Your task to perform on an android device: Search for "logitech g502" on target, select the first entry, add it to the cart, then select checkout. Image 0: 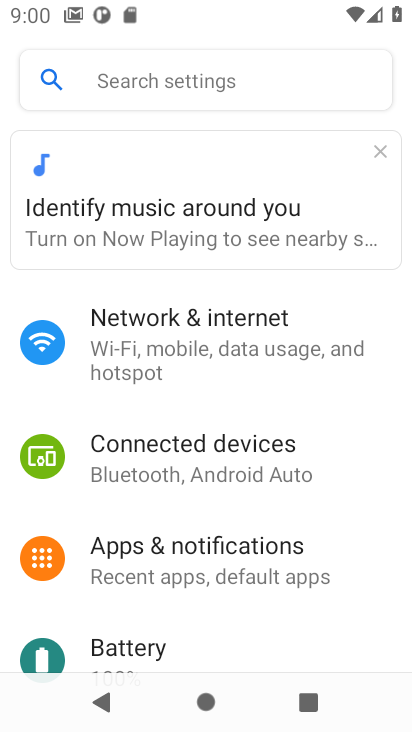
Step 0: press home button
Your task to perform on an android device: Search for "logitech g502" on target, select the first entry, add it to the cart, then select checkout. Image 1: 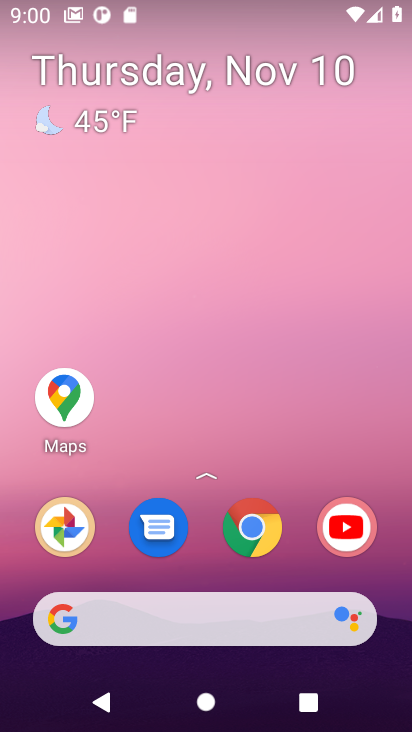
Step 1: drag from (132, 255) to (98, 50)
Your task to perform on an android device: Search for "logitech g502" on target, select the first entry, add it to the cart, then select checkout. Image 2: 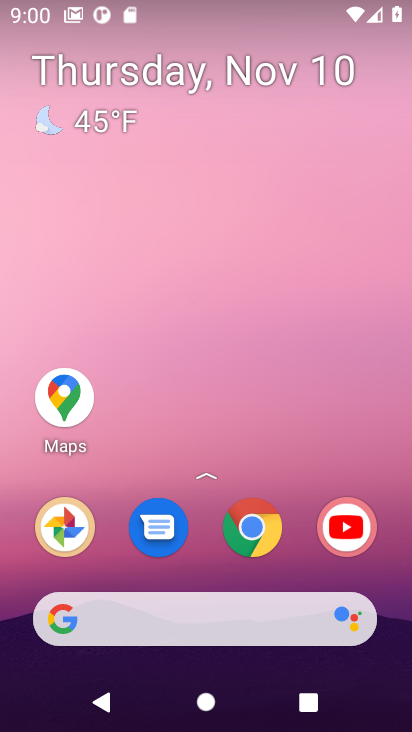
Step 2: drag from (270, 504) to (276, 33)
Your task to perform on an android device: Search for "logitech g502" on target, select the first entry, add it to the cart, then select checkout. Image 3: 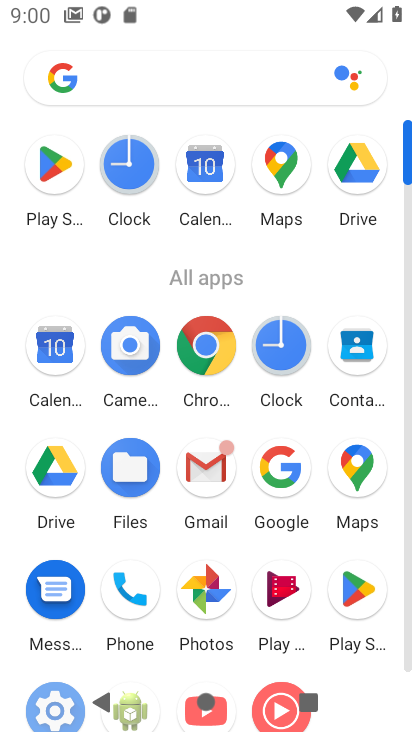
Step 3: click (177, 337)
Your task to perform on an android device: Search for "logitech g502" on target, select the first entry, add it to the cart, then select checkout. Image 4: 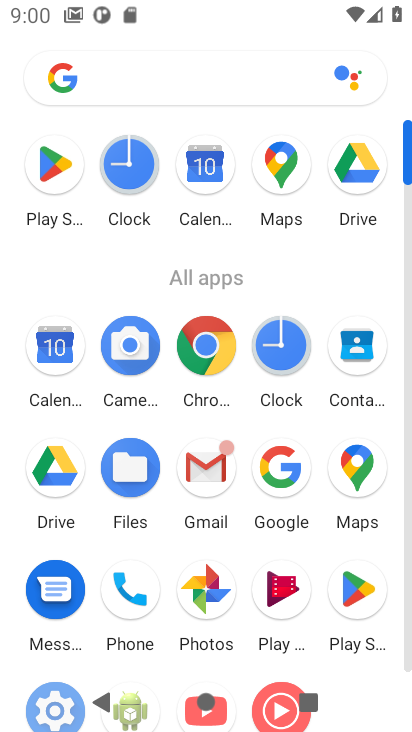
Step 4: click (204, 359)
Your task to perform on an android device: Search for "logitech g502" on target, select the first entry, add it to the cart, then select checkout. Image 5: 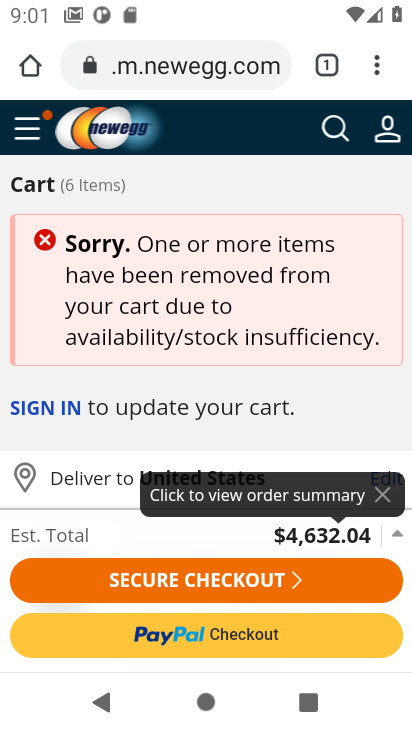
Step 5: click (164, 65)
Your task to perform on an android device: Search for "logitech g502" on target, select the first entry, add it to the cart, then select checkout. Image 6: 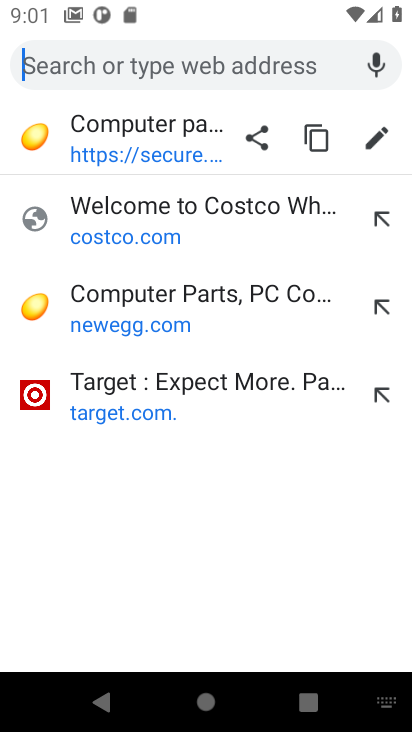
Step 6: type "target"
Your task to perform on an android device: Search for "logitech g502" on target, select the first entry, add it to the cart, then select checkout. Image 7: 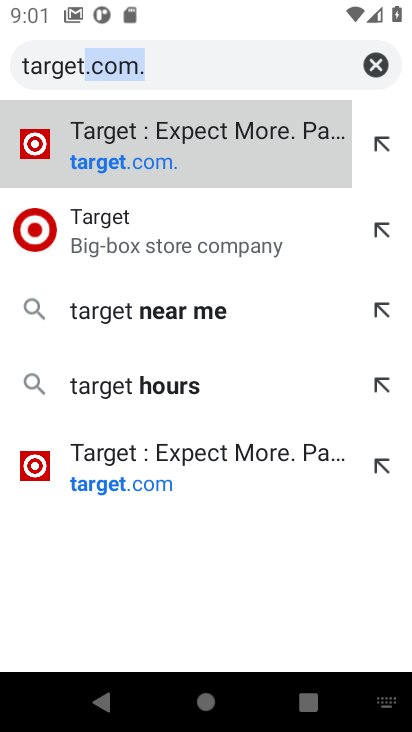
Step 7: press enter
Your task to perform on an android device: Search for "logitech g502" on target, select the first entry, add it to the cart, then select checkout. Image 8: 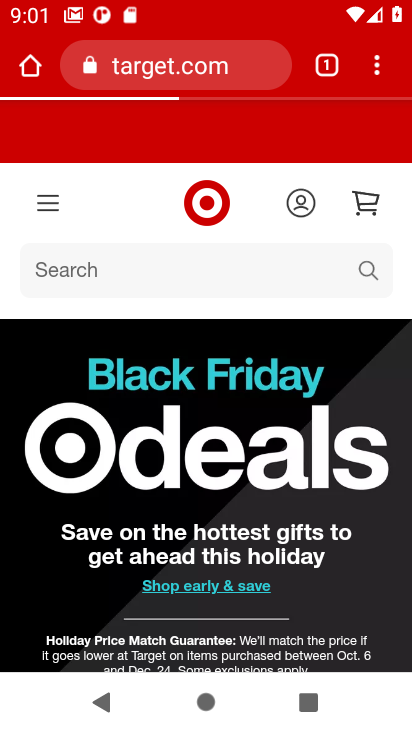
Step 8: click (99, 274)
Your task to perform on an android device: Search for "logitech g502" on target, select the first entry, add it to the cart, then select checkout. Image 9: 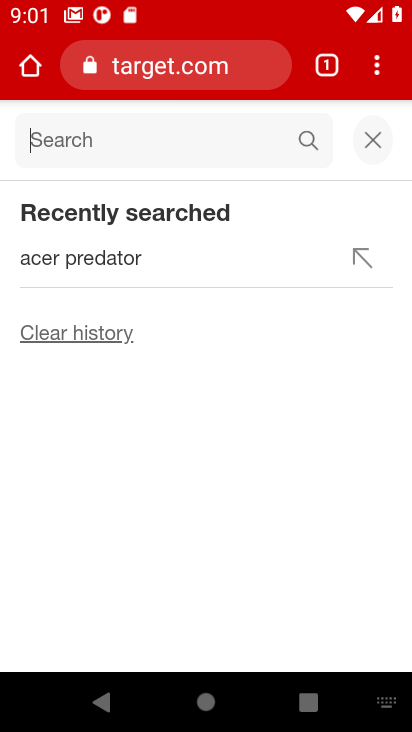
Step 9: type "logitech g502"
Your task to perform on an android device: Search for "logitech g502" on target, select the first entry, add it to the cart, then select checkout. Image 10: 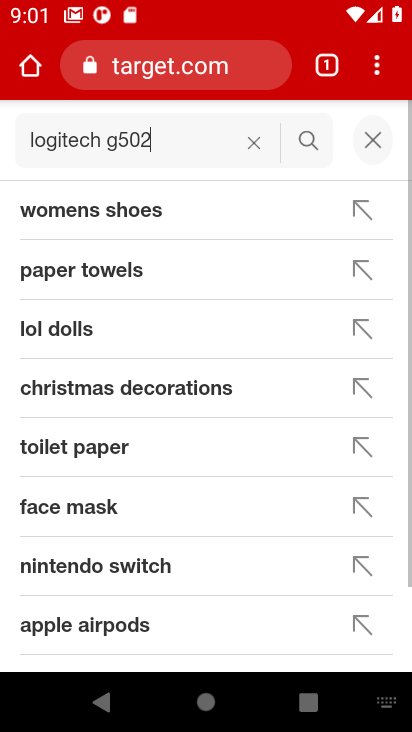
Step 10: press enter
Your task to perform on an android device: Search for "logitech g502" on target, select the first entry, add it to the cart, then select checkout. Image 11: 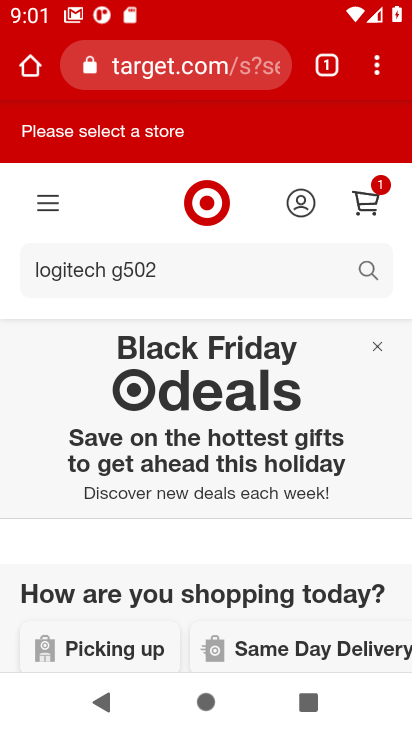
Step 11: drag from (245, 578) to (268, 322)
Your task to perform on an android device: Search for "logitech g502" on target, select the first entry, add it to the cart, then select checkout. Image 12: 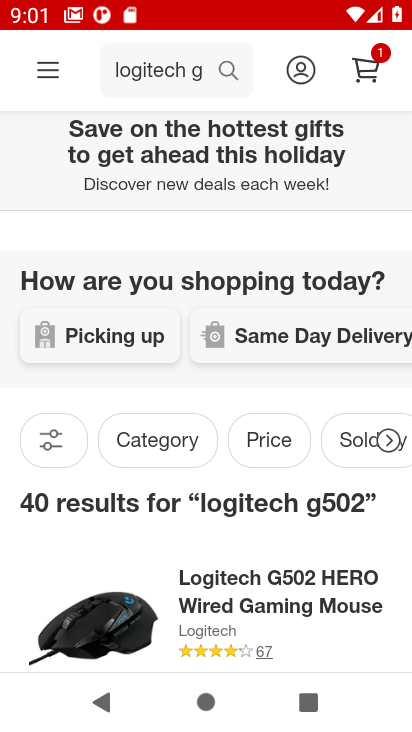
Step 12: drag from (232, 407) to (239, 201)
Your task to perform on an android device: Search for "logitech g502" on target, select the first entry, add it to the cart, then select checkout. Image 13: 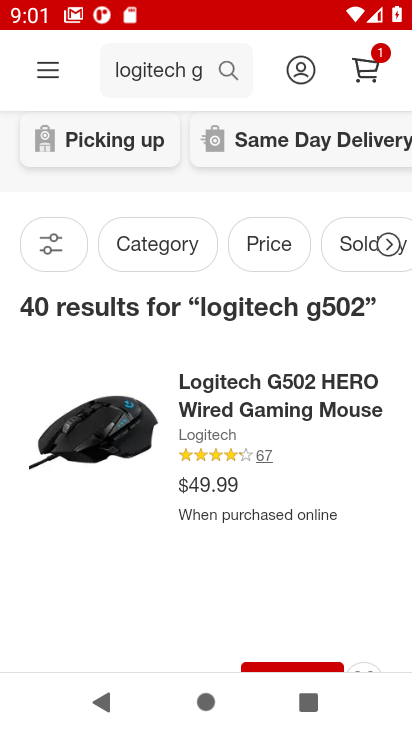
Step 13: click (222, 389)
Your task to perform on an android device: Search for "logitech g502" on target, select the first entry, add it to the cart, then select checkout. Image 14: 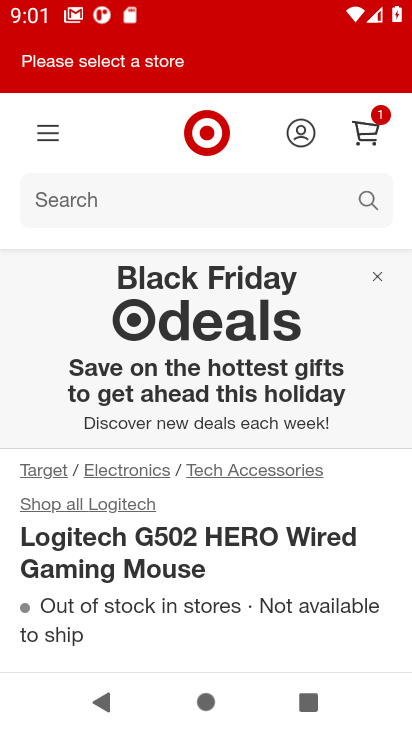
Step 14: drag from (217, 586) to (236, 284)
Your task to perform on an android device: Search for "logitech g502" on target, select the first entry, add it to the cart, then select checkout. Image 15: 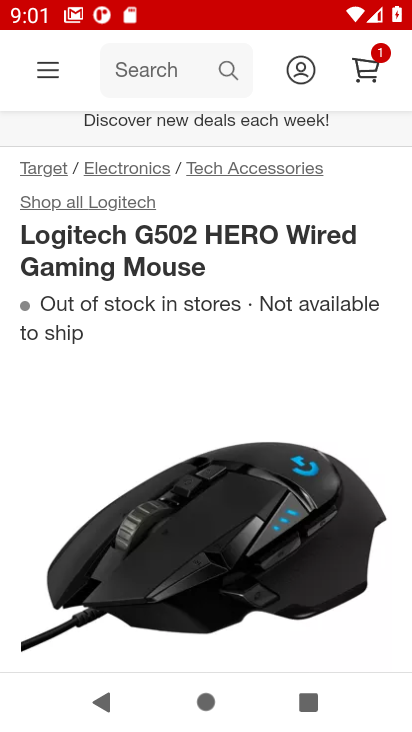
Step 15: drag from (224, 594) to (239, 250)
Your task to perform on an android device: Search for "logitech g502" on target, select the first entry, add it to the cart, then select checkout. Image 16: 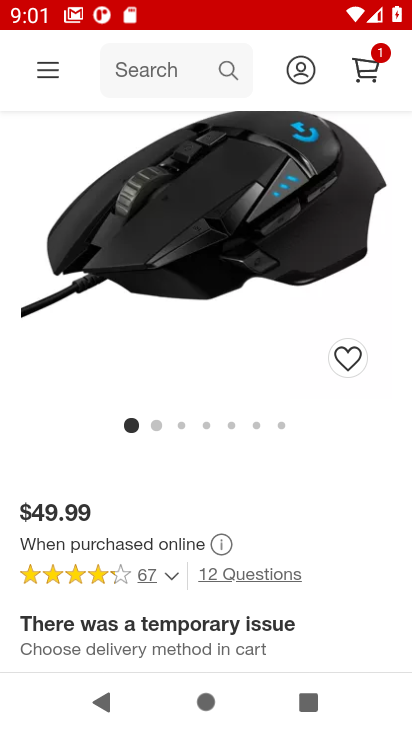
Step 16: drag from (222, 498) to (216, 212)
Your task to perform on an android device: Search for "logitech g502" on target, select the first entry, add it to the cart, then select checkout. Image 17: 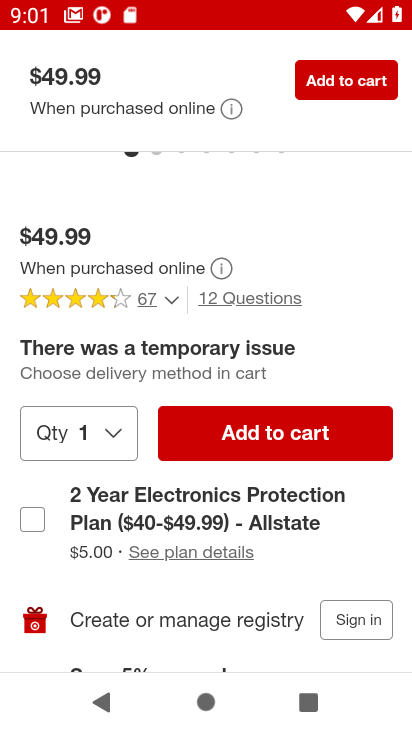
Step 17: click (212, 435)
Your task to perform on an android device: Search for "logitech g502" on target, select the first entry, add it to the cart, then select checkout. Image 18: 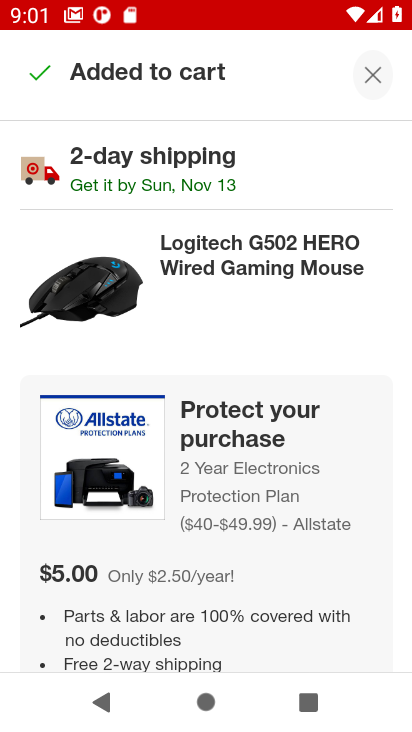
Step 18: click (379, 74)
Your task to perform on an android device: Search for "logitech g502" on target, select the first entry, add it to the cart, then select checkout. Image 19: 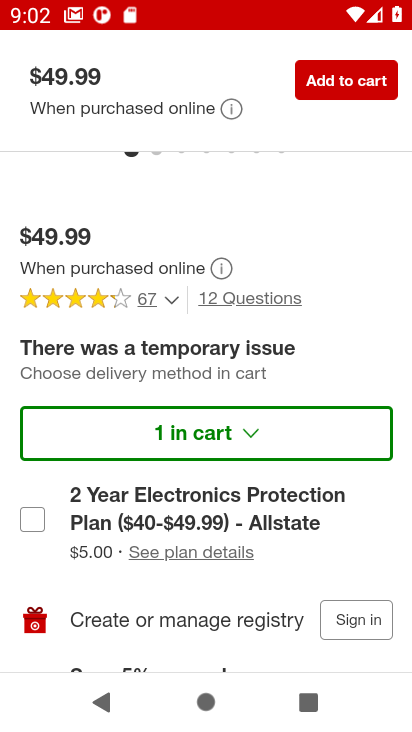
Step 19: drag from (174, 187) to (200, 555)
Your task to perform on an android device: Search for "logitech g502" on target, select the first entry, add it to the cart, then select checkout. Image 20: 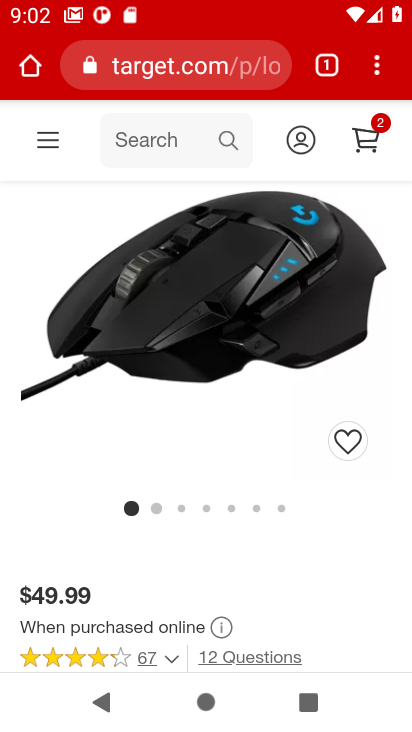
Step 20: click (365, 142)
Your task to perform on an android device: Search for "logitech g502" on target, select the first entry, add it to the cart, then select checkout. Image 21: 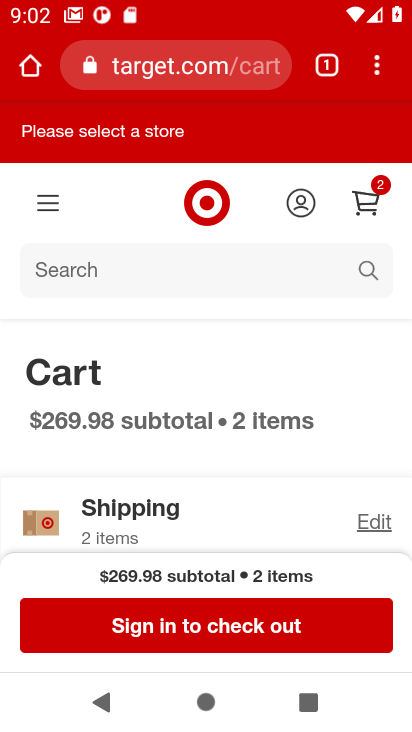
Step 21: click (225, 615)
Your task to perform on an android device: Search for "logitech g502" on target, select the first entry, add it to the cart, then select checkout. Image 22: 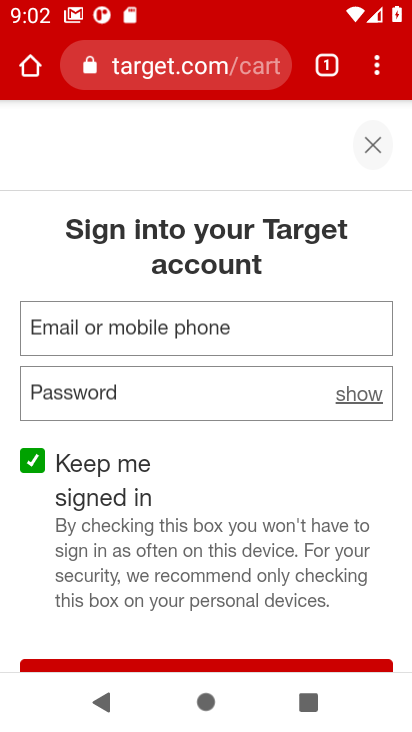
Step 22: task complete